Your task to perform on an android device: turn off javascript in the chrome app Image 0: 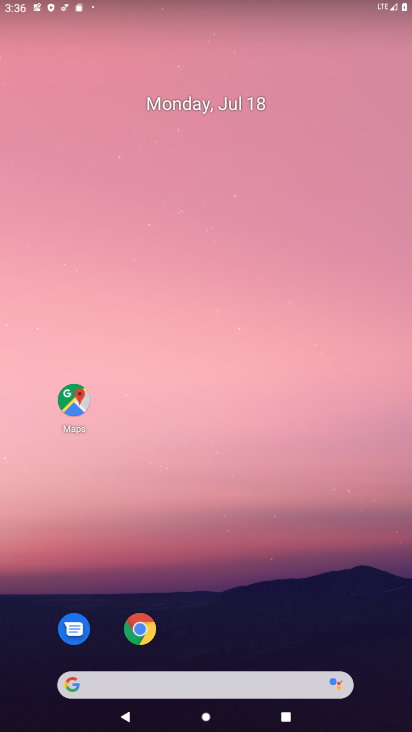
Step 0: drag from (204, 631) to (89, 4)
Your task to perform on an android device: turn off javascript in the chrome app Image 1: 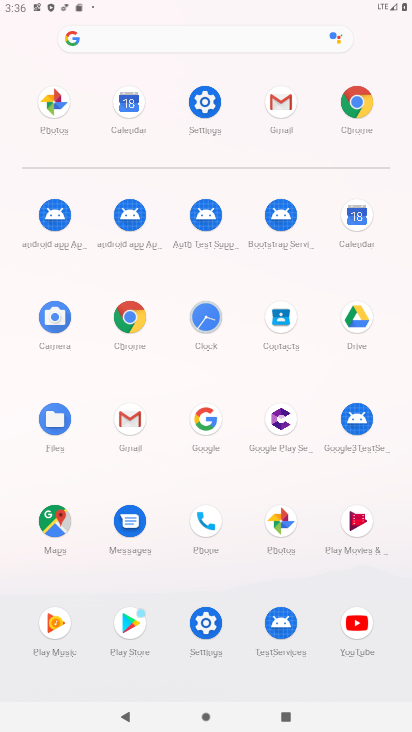
Step 1: click (133, 330)
Your task to perform on an android device: turn off javascript in the chrome app Image 2: 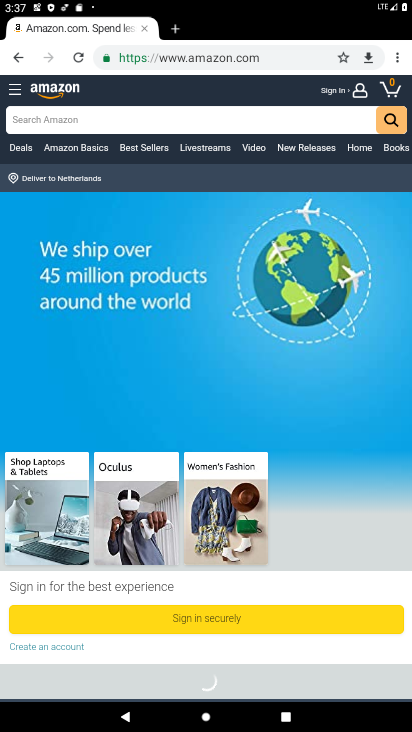
Step 2: click (393, 60)
Your task to perform on an android device: turn off javascript in the chrome app Image 3: 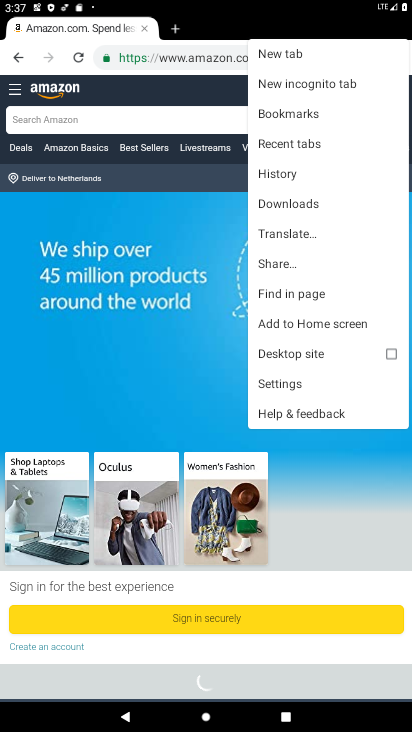
Step 3: click (283, 378)
Your task to perform on an android device: turn off javascript in the chrome app Image 4: 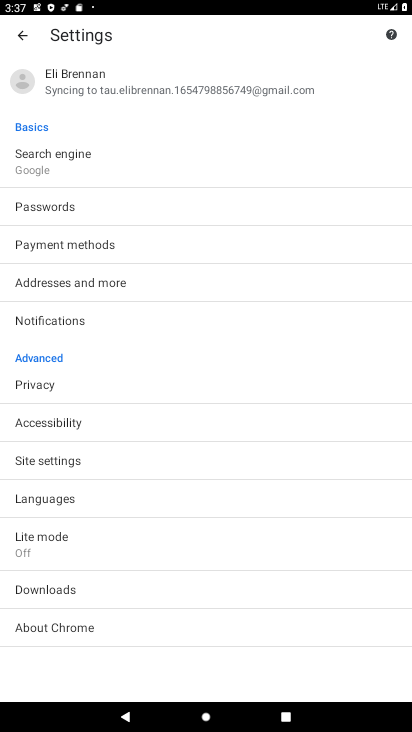
Step 4: click (61, 459)
Your task to perform on an android device: turn off javascript in the chrome app Image 5: 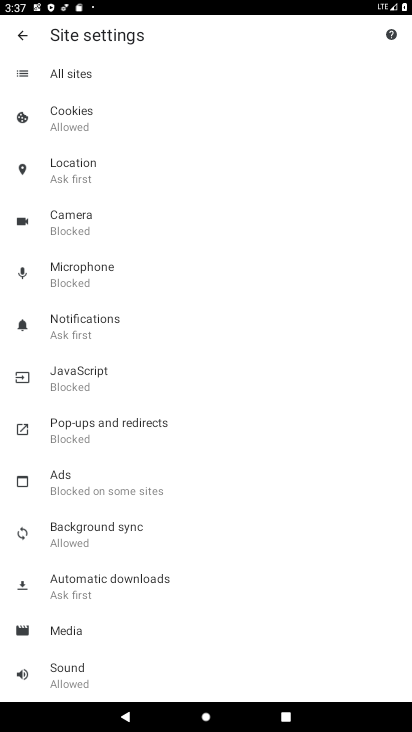
Step 5: click (89, 385)
Your task to perform on an android device: turn off javascript in the chrome app Image 6: 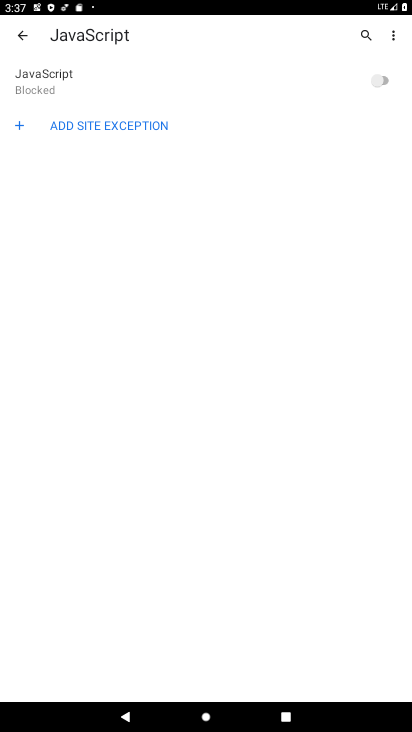
Step 6: task complete